Your task to perform on an android device: check data usage Image 0: 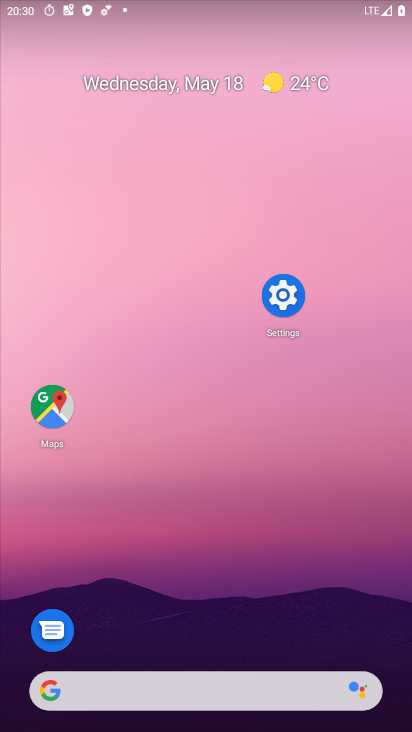
Step 0: click (293, 297)
Your task to perform on an android device: check data usage Image 1: 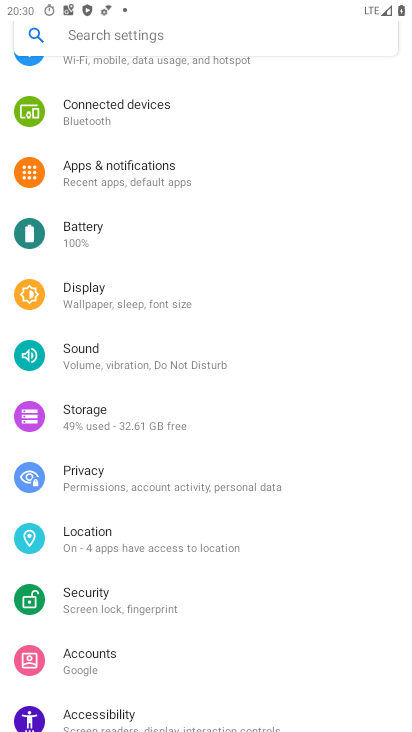
Step 1: click (169, 352)
Your task to perform on an android device: check data usage Image 2: 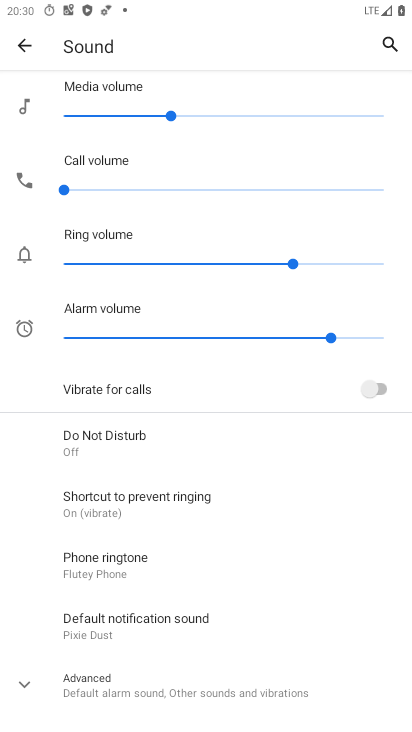
Step 2: drag from (114, 285) to (111, 465)
Your task to perform on an android device: check data usage Image 3: 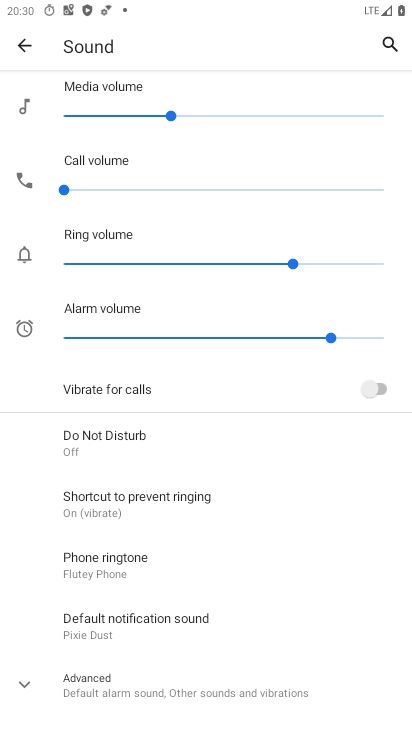
Step 3: click (164, 61)
Your task to perform on an android device: check data usage Image 4: 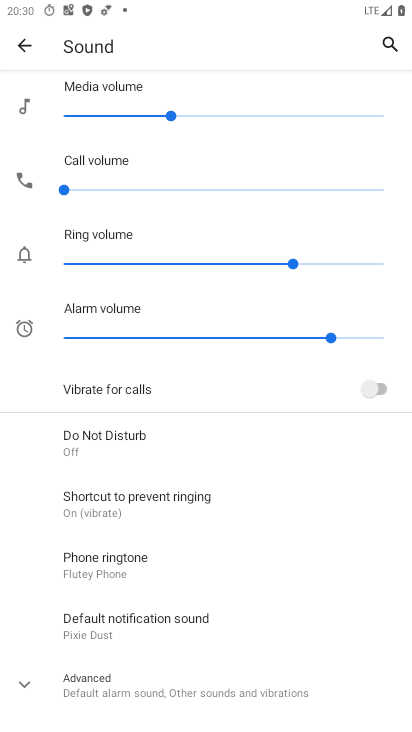
Step 4: click (21, 44)
Your task to perform on an android device: check data usage Image 5: 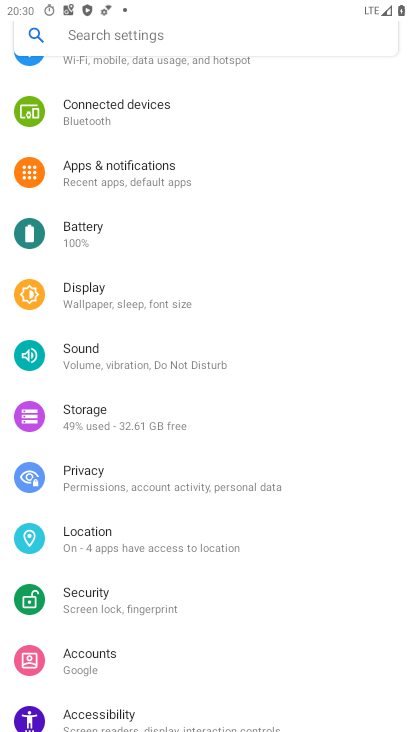
Step 5: click (117, 66)
Your task to perform on an android device: check data usage Image 6: 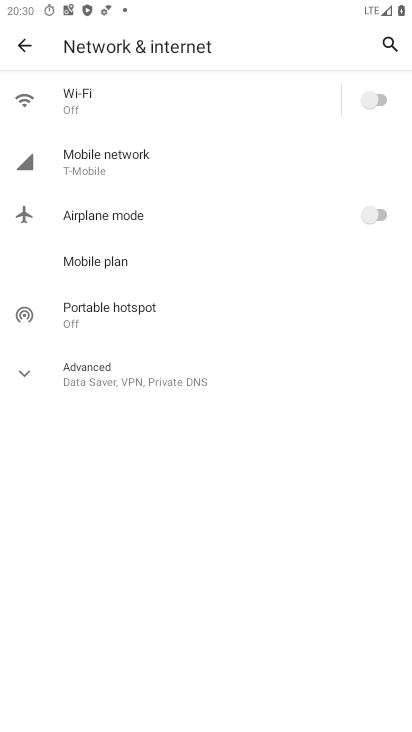
Step 6: click (101, 382)
Your task to perform on an android device: check data usage Image 7: 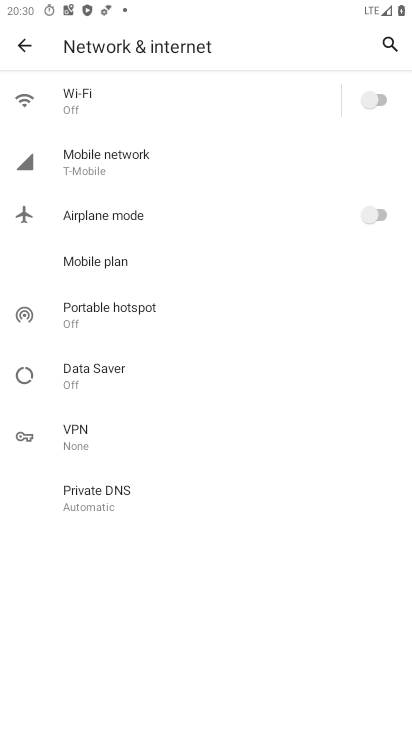
Step 7: click (105, 148)
Your task to perform on an android device: check data usage Image 8: 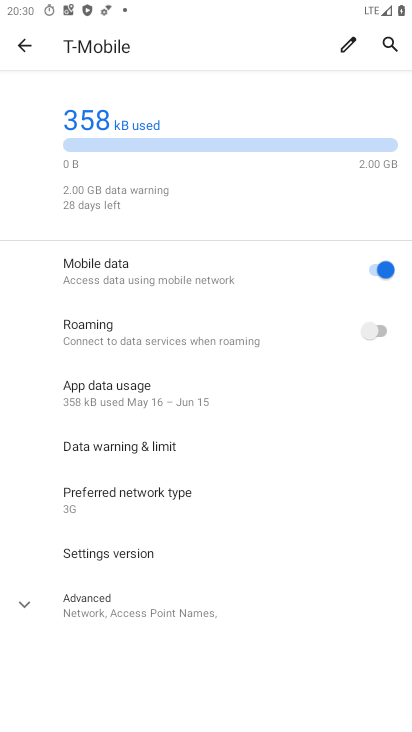
Step 8: click (168, 601)
Your task to perform on an android device: check data usage Image 9: 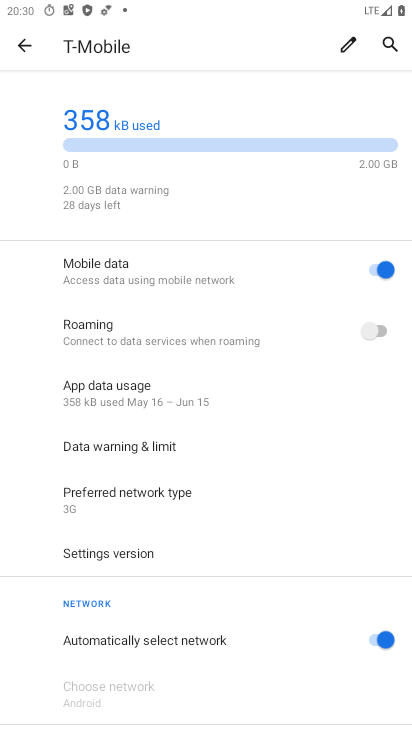
Step 9: task complete